Your task to perform on an android device: open a bookmark in the chrome app Image 0: 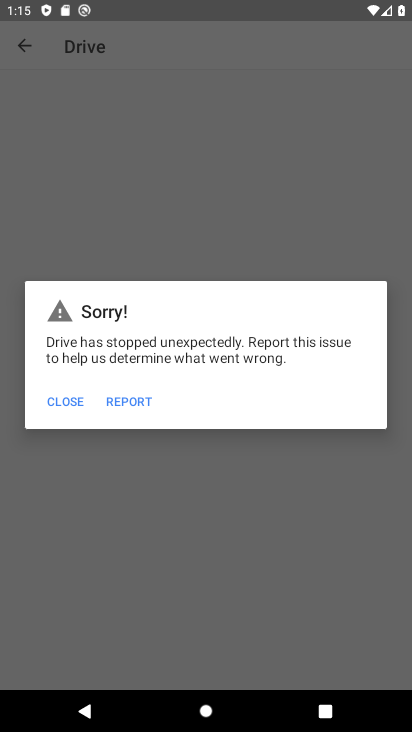
Step 0: press home button
Your task to perform on an android device: open a bookmark in the chrome app Image 1: 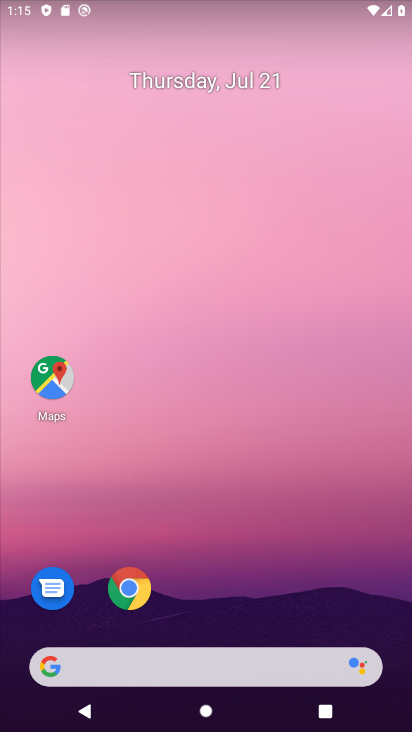
Step 1: drag from (199, 644) to (132, 7)
Your task to perform on an android device: open a bookmark in the chrome app Image 2: 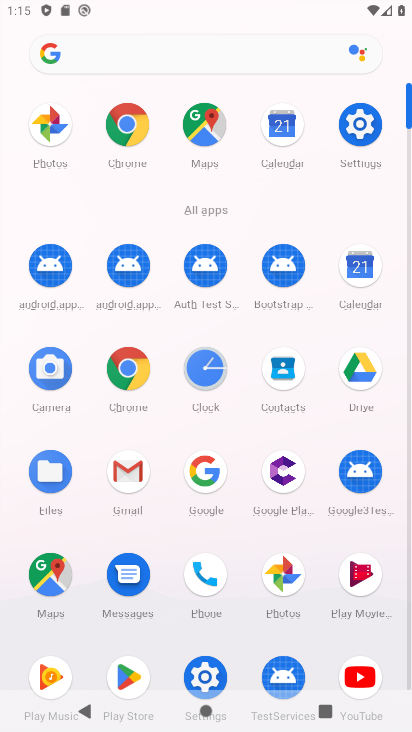
Step 2: click (119, 371)
Your task to perform on an android device: open a bookmark in the chrome app Image 3: 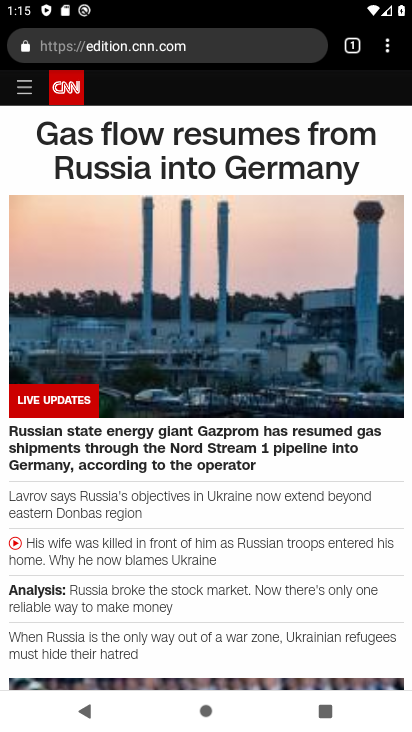
Step 3: click (386, 48)
Your task to perform on an android device: open a bookmark in the chrome app Image 4: 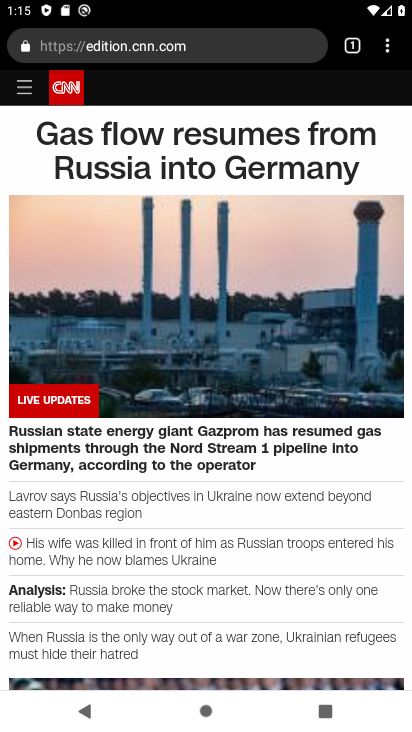
Step 4: task complete